Your task to perform on an android device: Open the calendar app, open the side menu, and click the "Day" option Image 0: 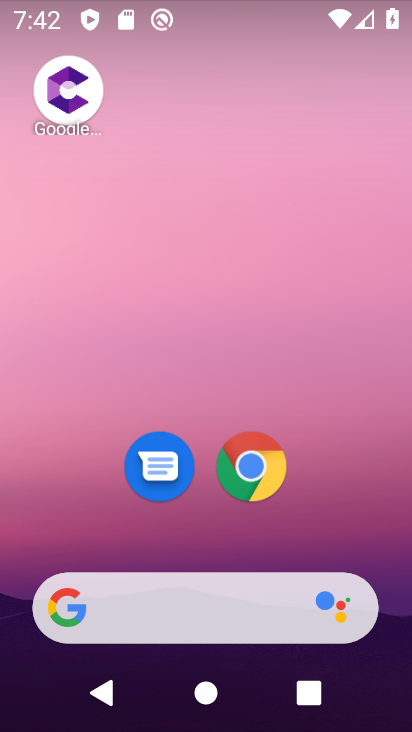
Step 0: drag from (55, 546) to (300, 94)
Your task to perform on an android device: Open the calendar app, open the side menu, and click the "Day" option Image 1: 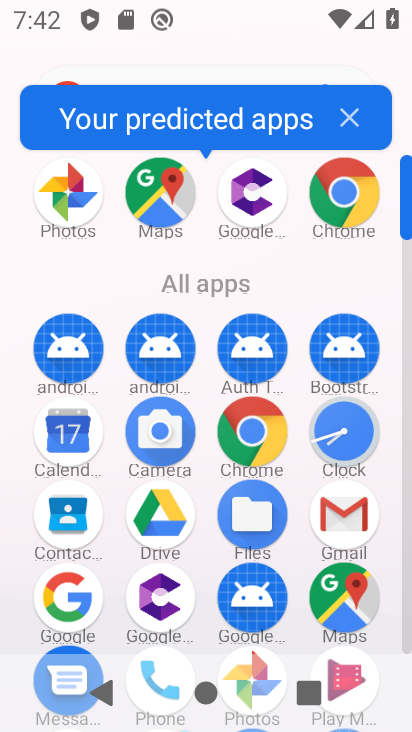
Step 1: click (63, 436)
Your task to perform on an android device: Open the calendar app, open the side menu, and click the "Day" option Image 2: 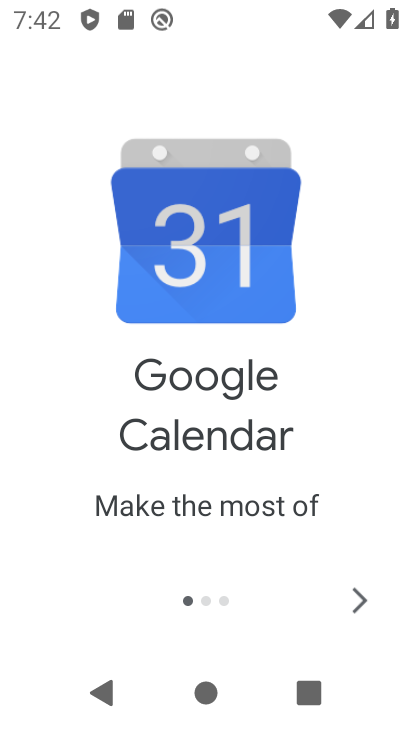
Step 2: click (358, 600)
Your task to perform on an android device: Open the calendar app, open the side menu, and click the "Day" option Image 3: 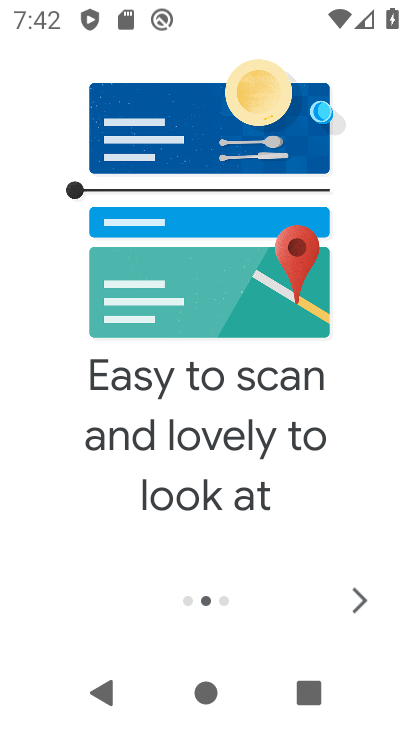
Step 3: click (360, 595)
Your task to perform on an android device: Open the calendar app, open the side menu, and click the "Day" option Image 4: 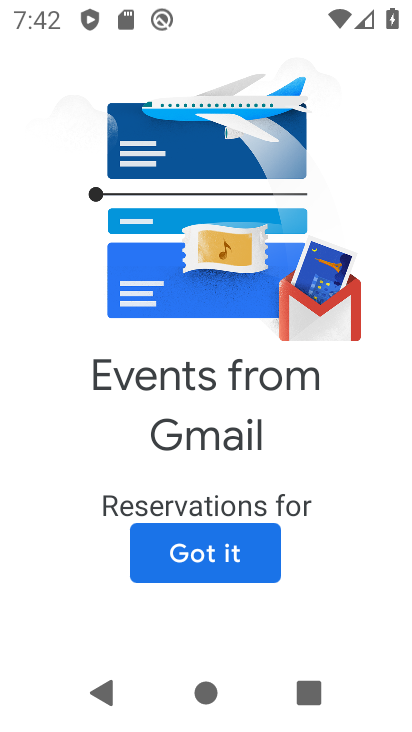
Step 4: click (250, 553)
Your task to perform on an android device: Open the calendar app, open the side menu, and click the "Day" option Image 5: 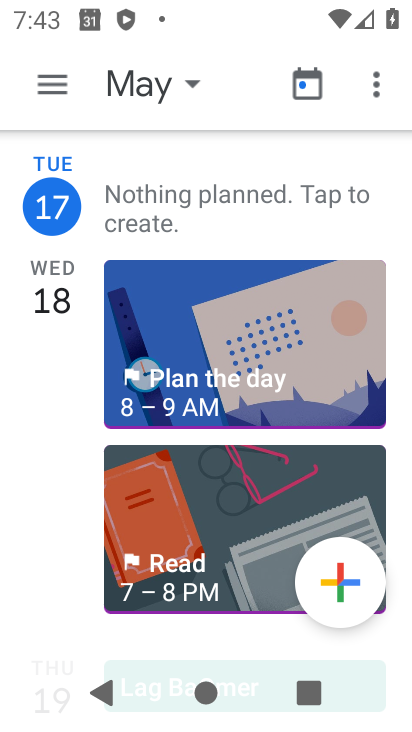
Step 5: click (55, 83)
Your task to perform on an android device: Open the calendar app, open the side menu, and click the "Day" option Image 6: 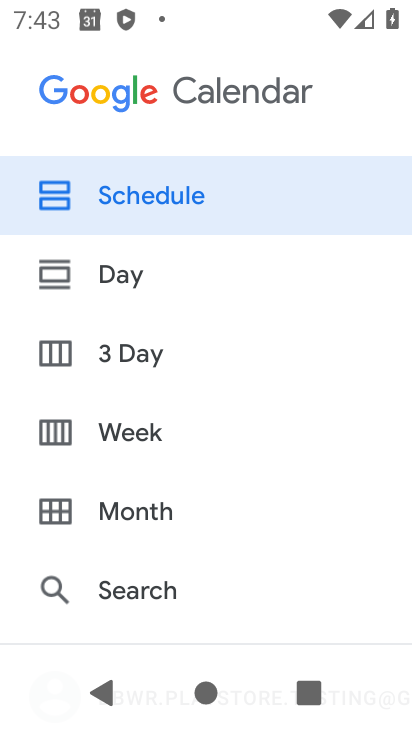
Step 6: click (175, 281)
Your task to perform on an android device: Open the calendar app, open the side menu, and click the "Day" option Image 7: 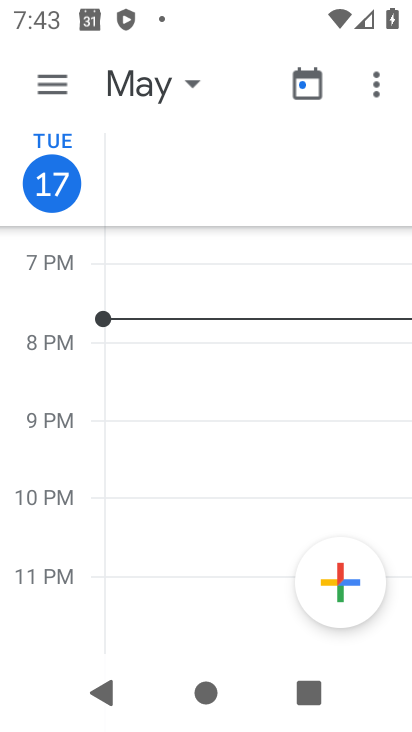
Step 7: task complete